Your task to perform on an android device: add a label to a message in the gmail app Image 0: 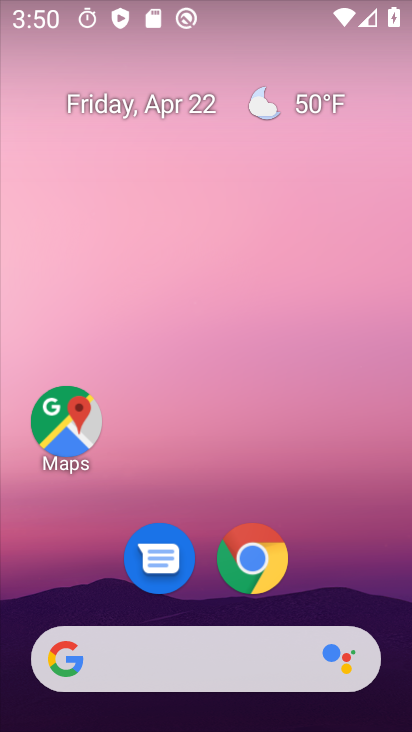
Step 0: drag from (334, 599) to (287, 125)
Your task to perform on an android device: add a label to a message in the gmail app Image 1: 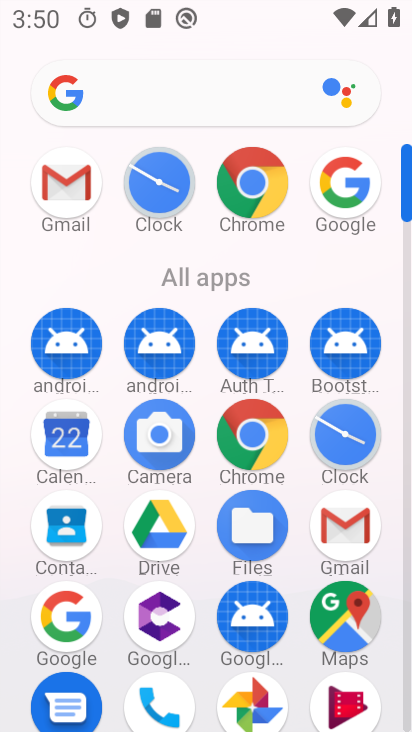
Step 1: click (57, 184)
Your task to perform on an android device: add a label to a message in the gmail app Image 2: 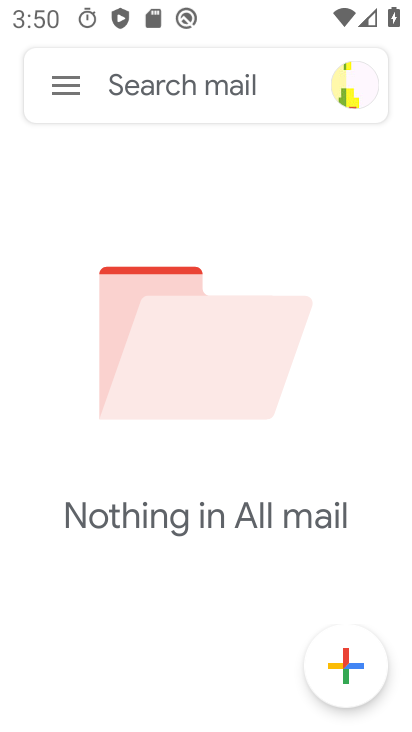
Step 2: task complete